Your task to perform on an android device: Open Google Maps Image 0: 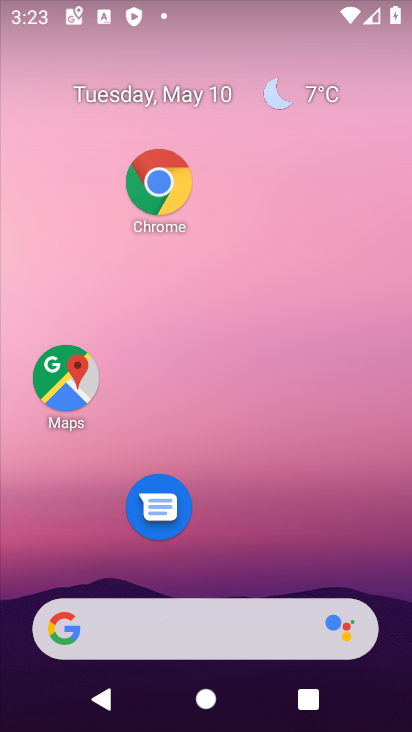
Step 0: click (35, 375)
Your task to perform on an android device: Open Google Maps Image 1: 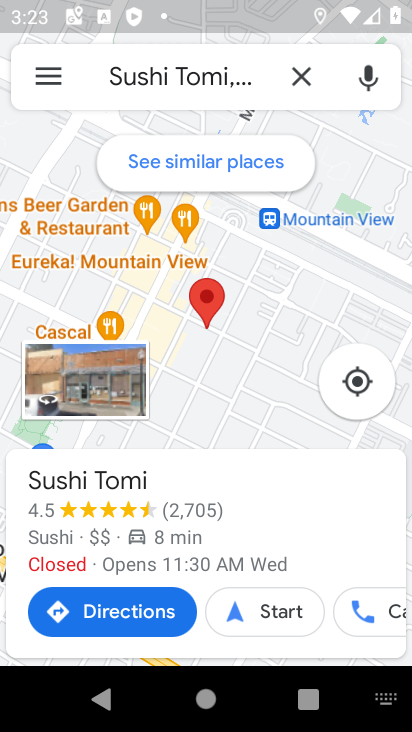
Step 1: task complete